Your task to perform on an android device: Go to privacy settings Image 0: 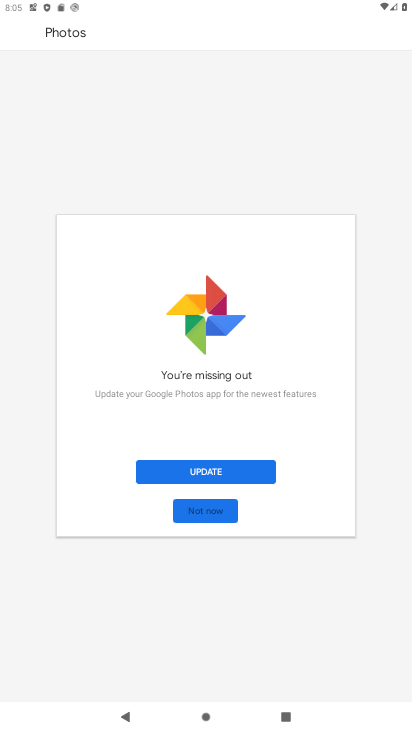
Step 0: drag from (266, 512) to (274, 325)
Your task to perform on an android device: Go to privacy settings Image 1: 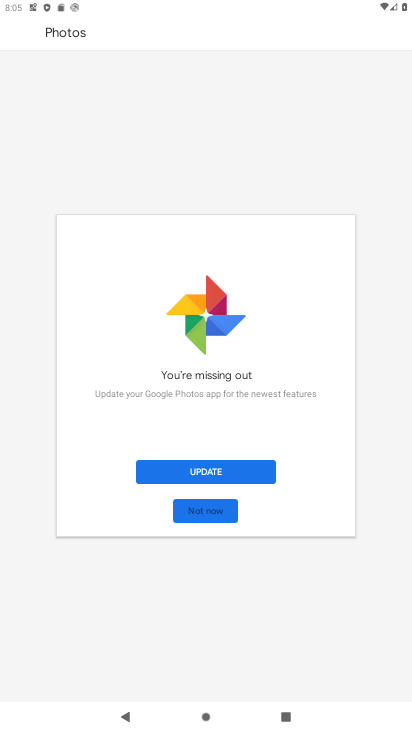
Step 1: press home button
Your task to perform on an android device: Go to privacy settings Image 2: 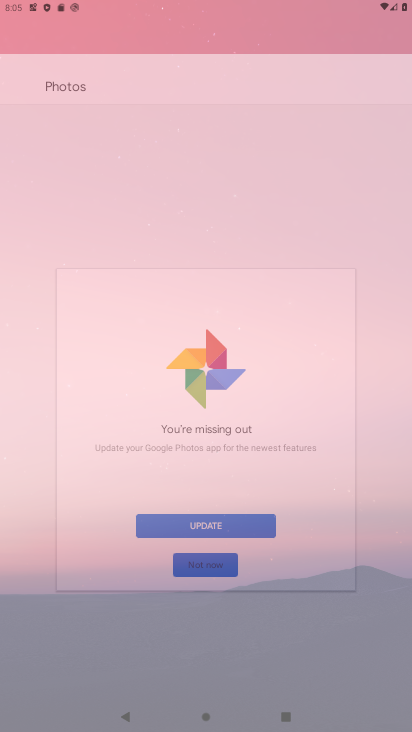
Step 2: drag from (160, 618) to (353, 112)
Your task to perform on an android device: Go to privacy settings Image 3: 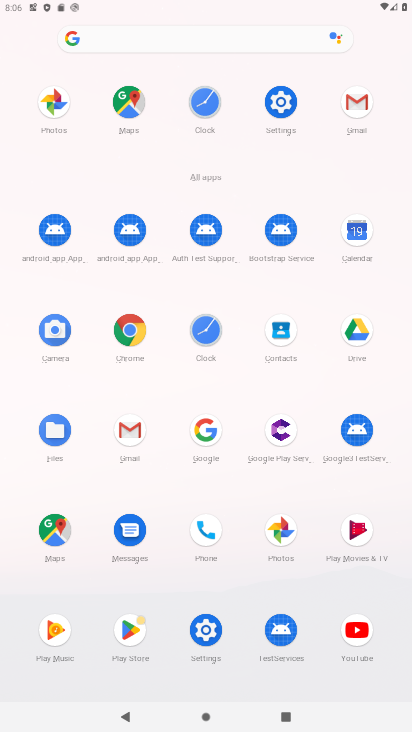
Step 3: click (202, 618)
Your task to perform on an android device: Go to privacy settings Image 4: 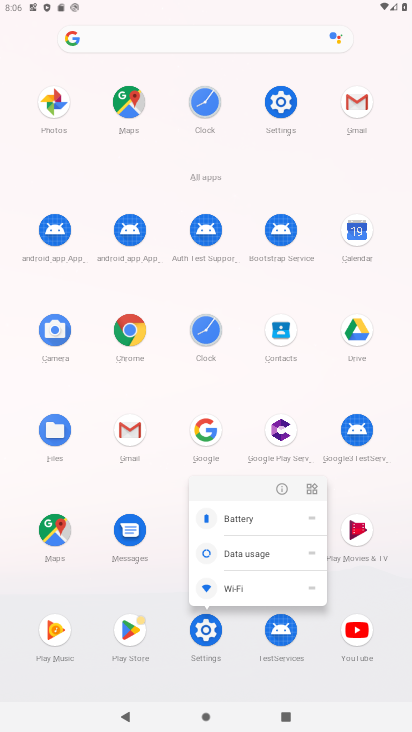
Step 4: click (274, 478)
Your task to perform on an android device: Go to privacy settings Image 5: 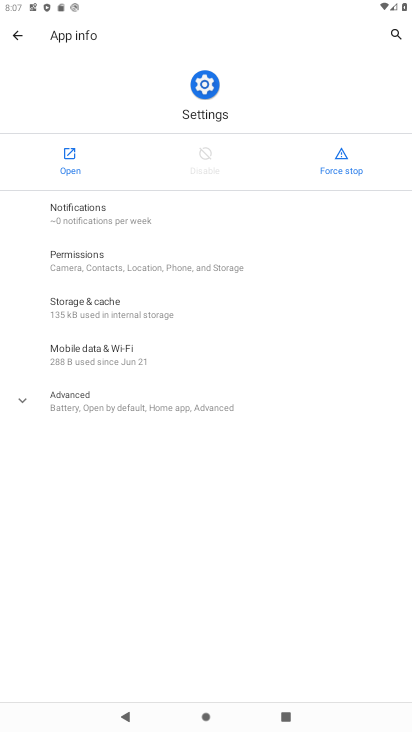
Step 5: drag from (139, 593) to (217, 376)
Your task to perform on an android device: Go to privacy settings Image 6: 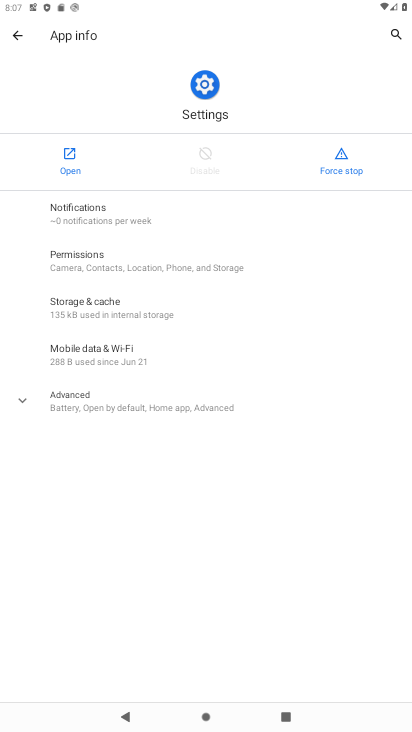
Step 6: click (75, 179)
Your task to perform on an android device: Go to privacy settings Image 7: 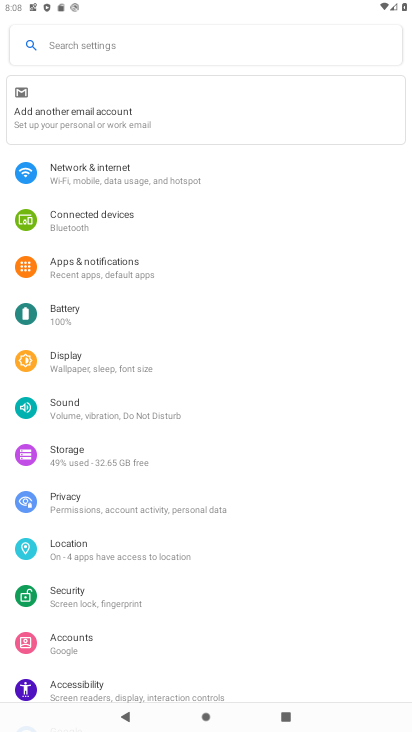
Step 7: click (108, 501)
Your task to perform on an android device: Go to privacy settings Image 8: 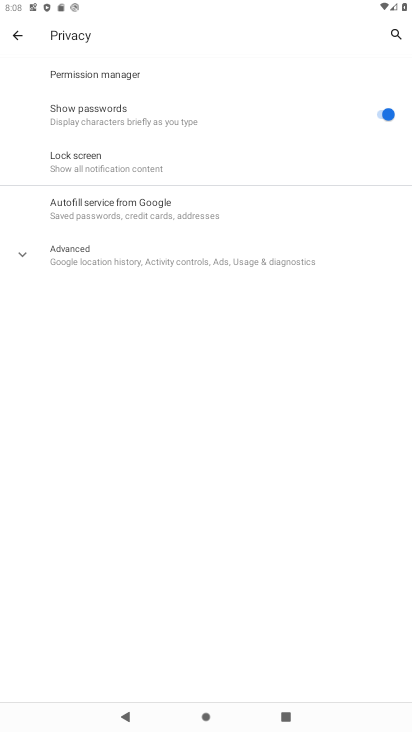
Step 8: task complete